Your task to perform on an android device: Open location settings Image 0: 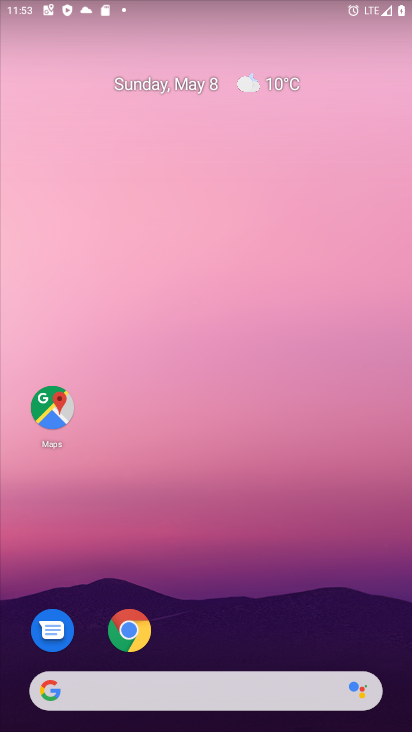
Step 0: drag from (375, 616) to (261, 19)
Your task to perform on an android device: Open location settings Image 1: 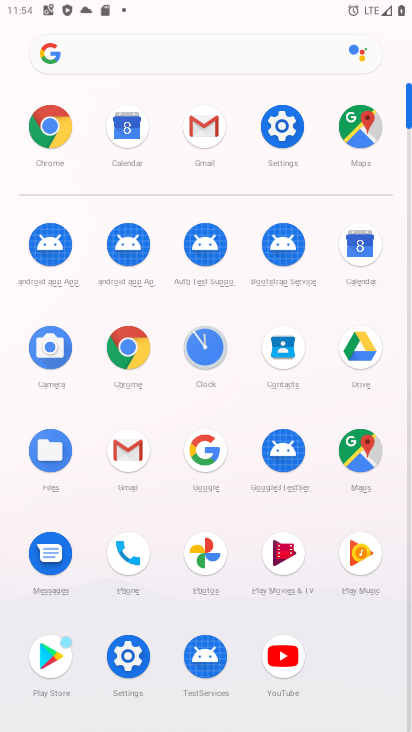
Step 1: click (124, 657)
Your task to perform on an android device: Open location settings Image 2: 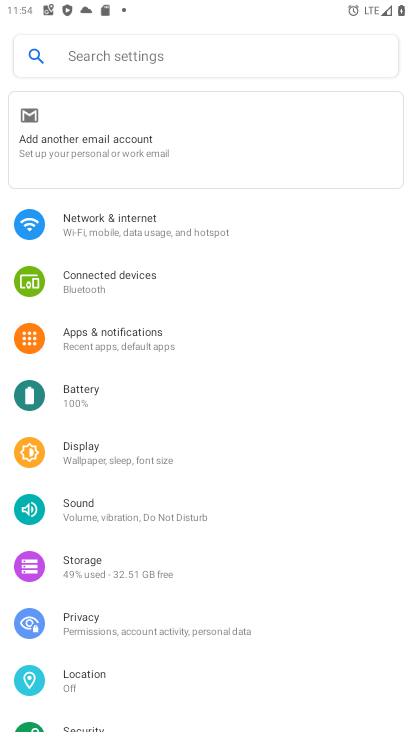
Step 2: drag from (57, 664) to (142, 474)
Your task to perform on an android device: Open location settings Image 3: 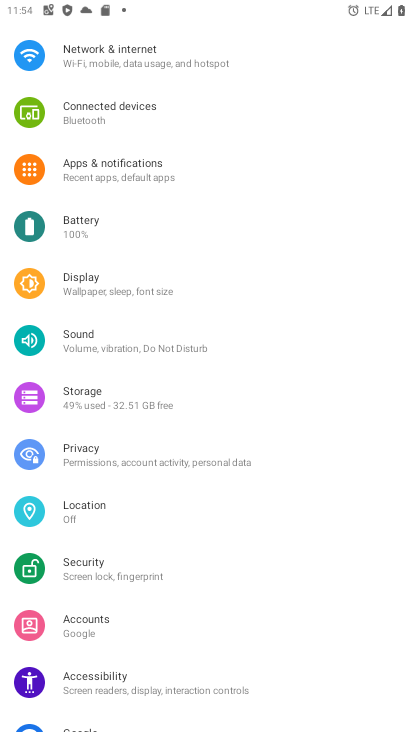
Step 3: click (101, 522)
Your task to perform on an android device: Open location settings Image 4: 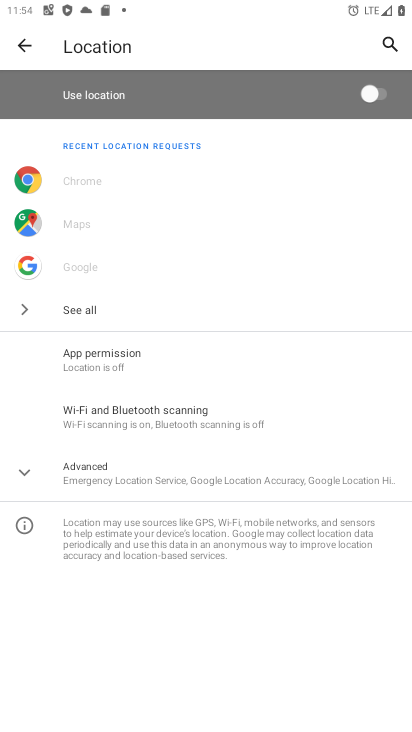
Step 4: task complete